Your task to perform on an android device: change keyboard looks Image 0: 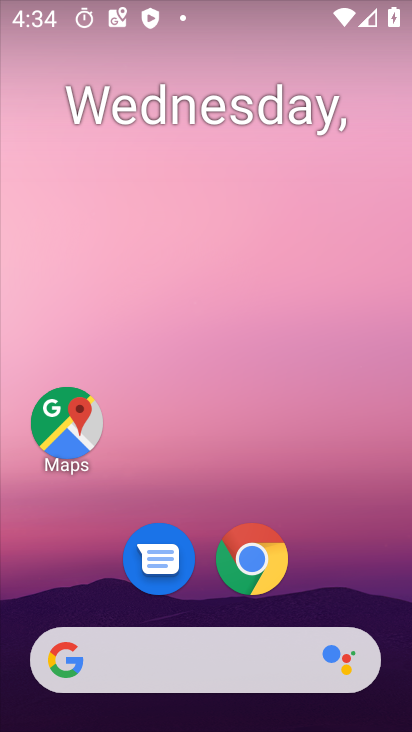
Step 0: drag from (329, 563) to (230, 32)
Your task to perform on an android device: change keyboard looks Image 1: 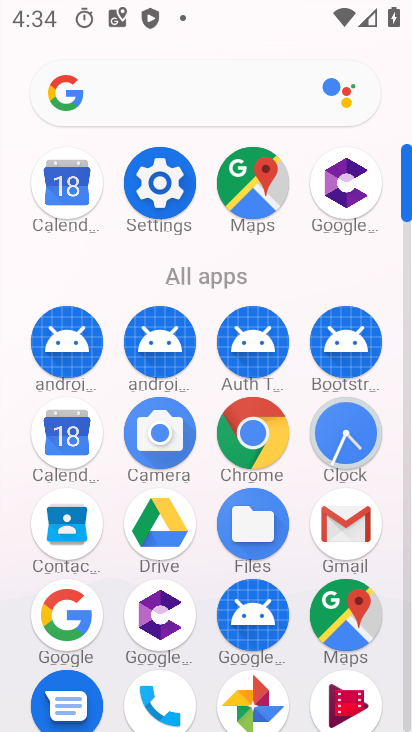
Step 1: click (159, 174)
Your task to perform on an android device: change keyboard looks Image 2: 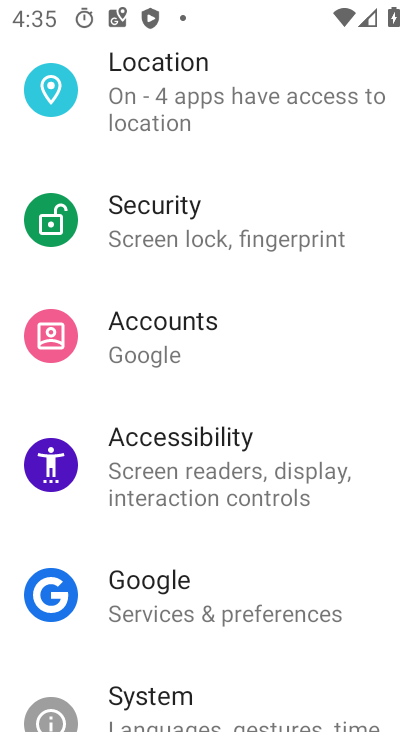
Step 2: drag from (232, 620) to (234, 145)
Your task to perform on an android device: change keyboard looks Image 3: 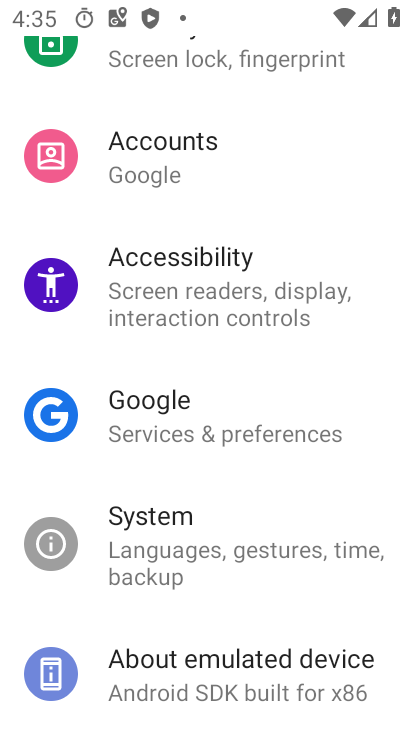
Step 3: click (211, 525)
Your task to perform on an android device: change keyboard looks Image 4: 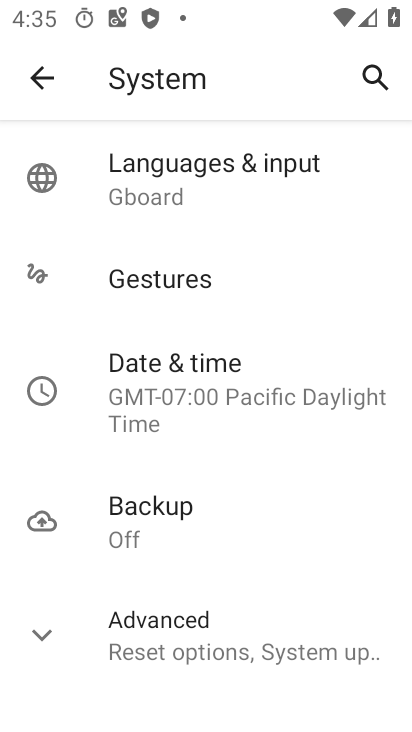
Step 4: click (166, 186)
Your task to perform on an android device: change keyboard looks Image 5: 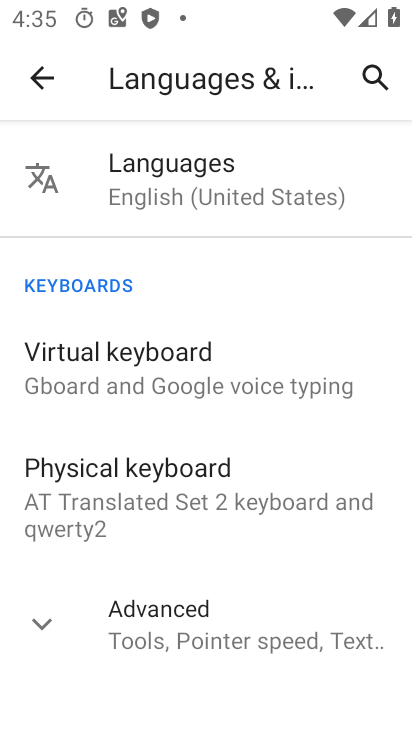
Step 5: click (165, 365)
Your task to perform on an android device: change keyboard looks Image 6: 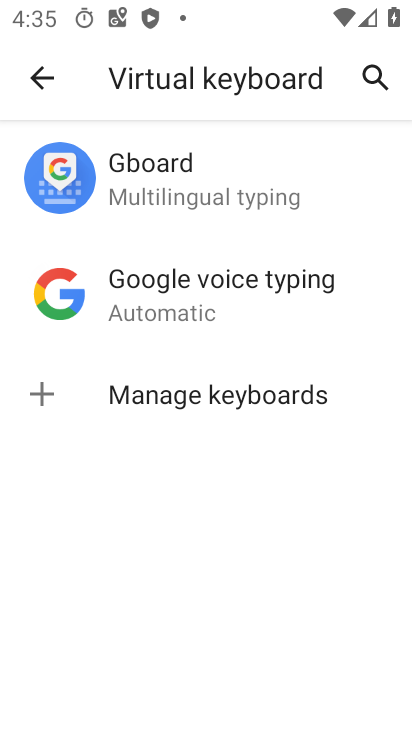
Step 6: click (198, 165)
Your task to perform on an android device: change keyboard looks Image 7: 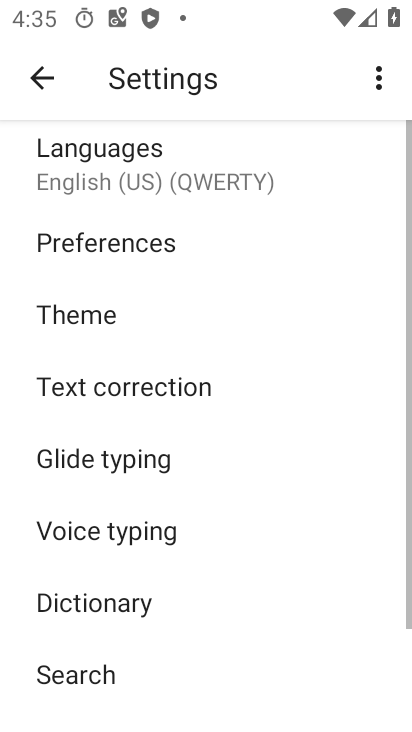
Step 7: click (153, 337)
Your task to perform on an android device: change keyboard looks Image 8: 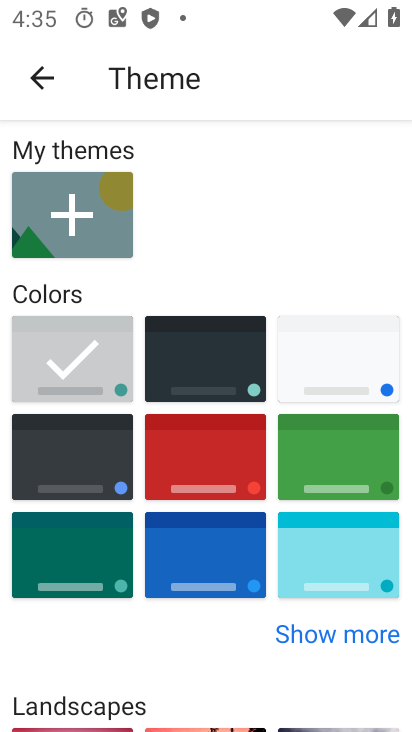
Step 8: click (235, 463)
Your task to perform on an android device: change keyboard looks Image 9: 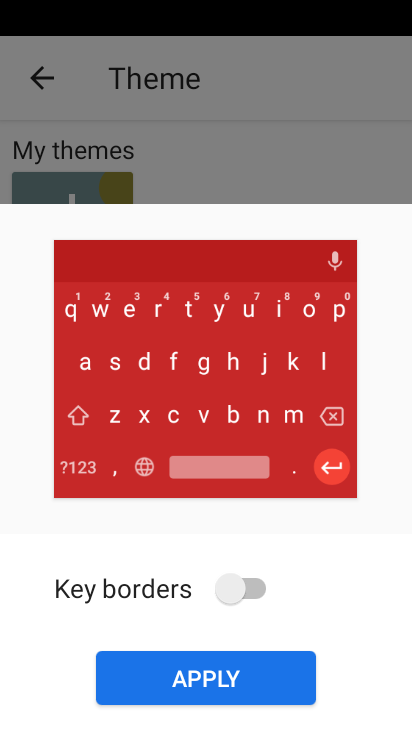
Step 9: click (206, 677)
Your task to perform on an android device: change keyboard looks Image 10: 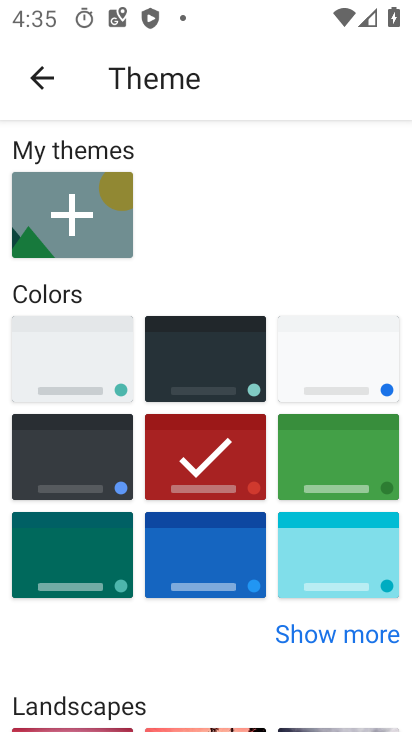
Step 10: task complete